Your task to perform on an android device: add a contact in the contacts app Image 0: 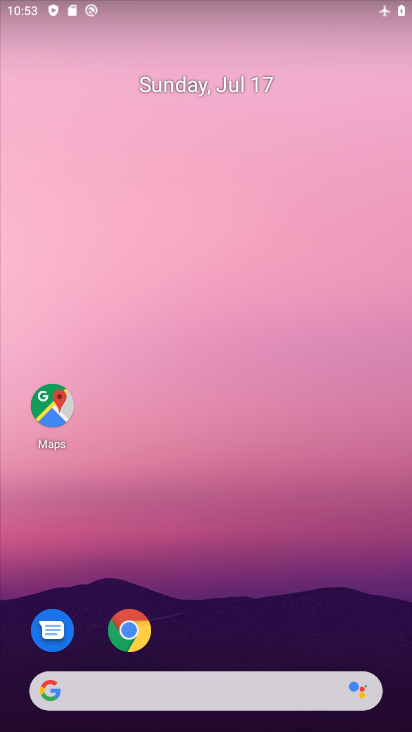
Step 0: drag from (219, 657) to (358, 21)
Your task to perform on an android device: add a contact in the contacts app Image 1: 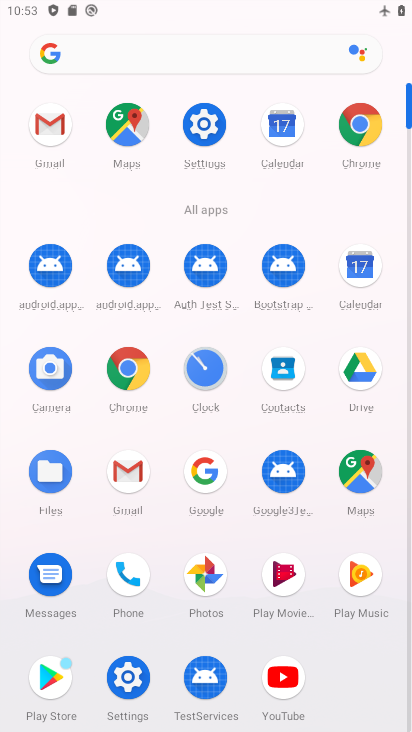
Step 1: click (133, 565)
Your task to perform on an android device: add a contact in the contacts app Image 2: 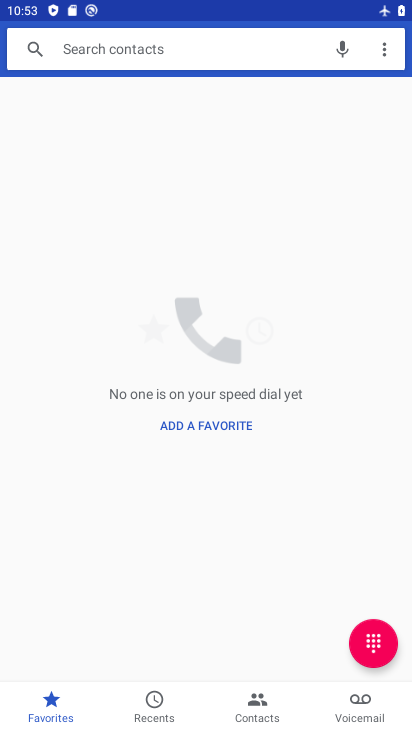
Step 2: click (254, 702)
Your task to perform on an android device: add a contact in the contacts app Image 3: 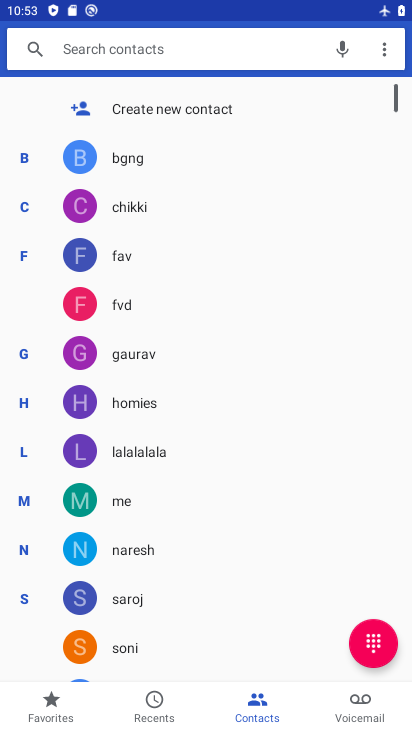
Step 3: click (157, 113)
Your task to perform on an android device: add a contact in the contacts app Image 4: 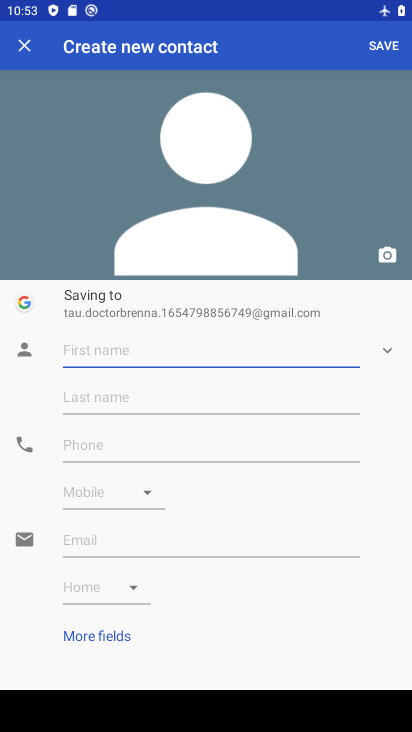
Step 4: type "fg"
Your task to perform on an android device: add a contact in the contacts app Image 5: 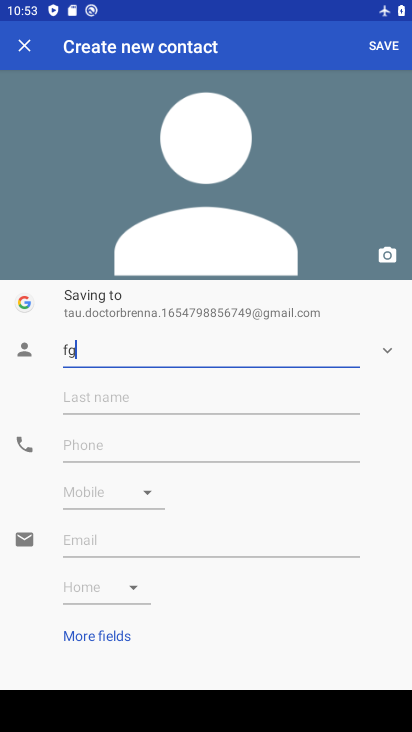
Step 5: type ""
Your task to perform on an android device: add a contact in the contacts app Image 6: 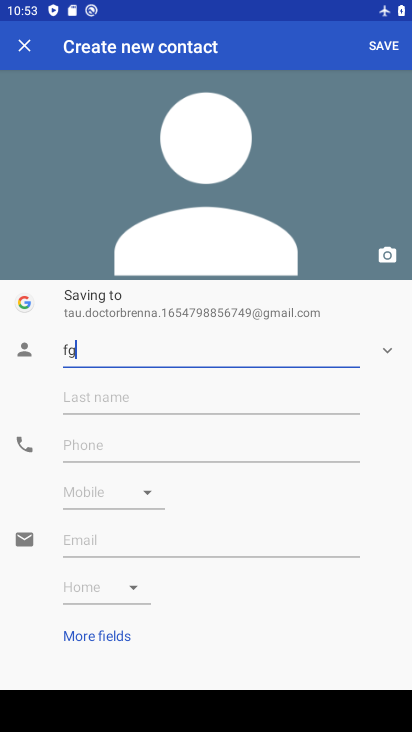
Step 6: click (124, 458)
Your task to perform on an android device: add a contact in the contacts app Image 7: 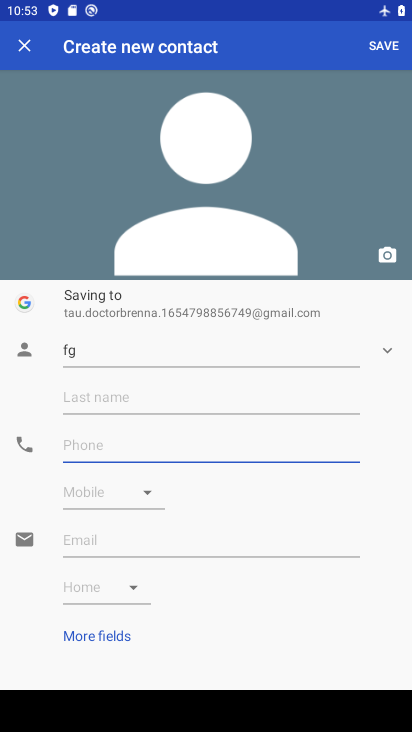
Step 7: type "65"
Your task to perform on an android device: add a contact in the contacts app Image 8: 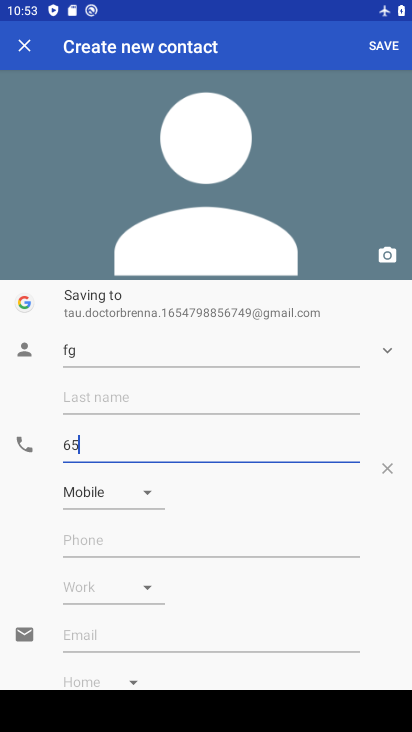
Step 8: click (373, 51)
Your task to perform on an android device: add a contact in the contacts app Image 9: 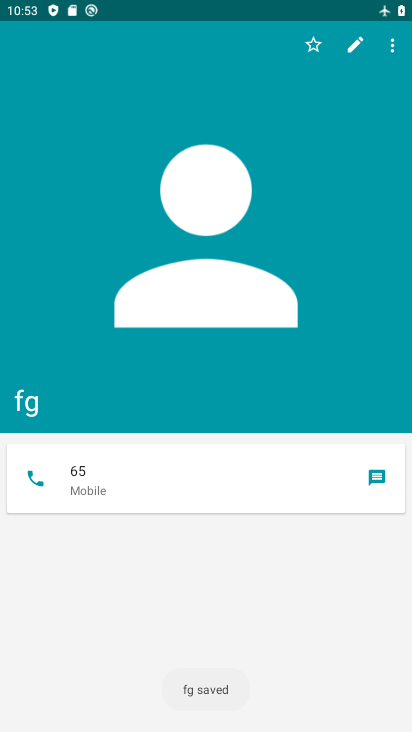
Step 9: task complete